Your task to perform on an android device: Search for a coffee table on Crate & Barrel Image 0: 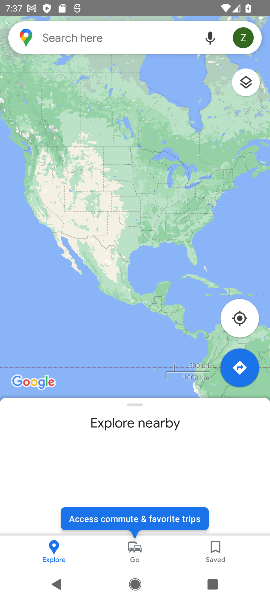
Step 0: press home button
Your task to perform on an android device: Search for a coffee table on Crate & Barrel Image 1: 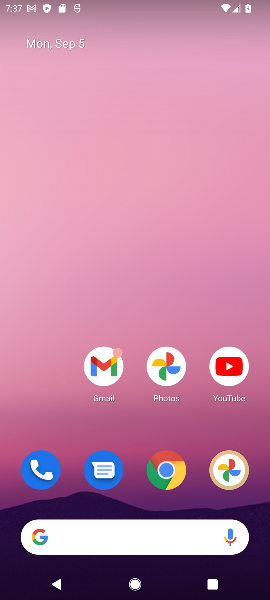
Step 1: drag from (129, 508) to (138, 53)
Your task to perform on an android device: Search for a coffee table on Crate & Barrel Image 2: 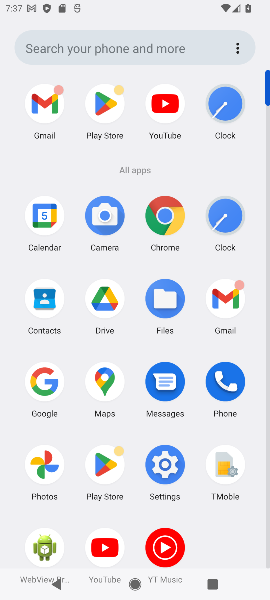
Step 2: click (40, 382)
Your task to perform on an android device: Search for a coffee table on Crate & Barrel Image 3: 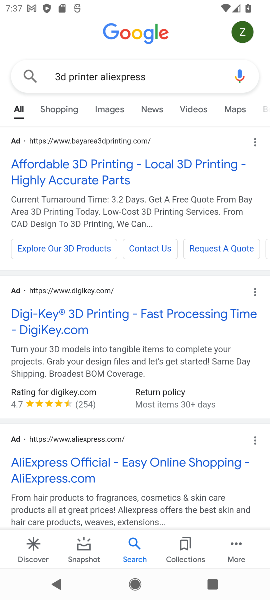
Step 3: click (115, 84)
Your task to perform on an android device: Search for a coffee table on Crate & Barrel Image 4: 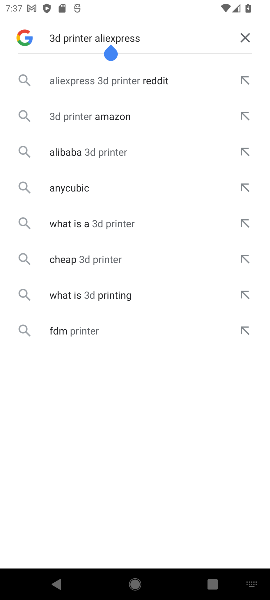
Step 4: click (242, 33)
Your task to perform on an android device: Search for a coffee table on Crate & Barrel Image 5: 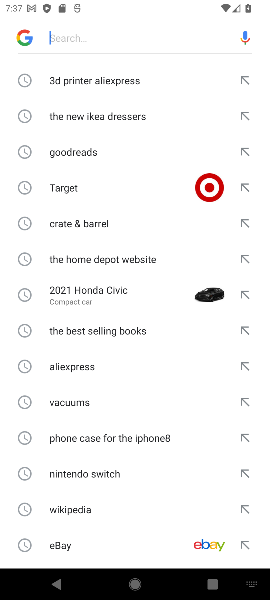
Step 5: type "Crate & Barrel"
Your task to perform on an android device: Search for a coffee table on Crate & Barrel Image 6: 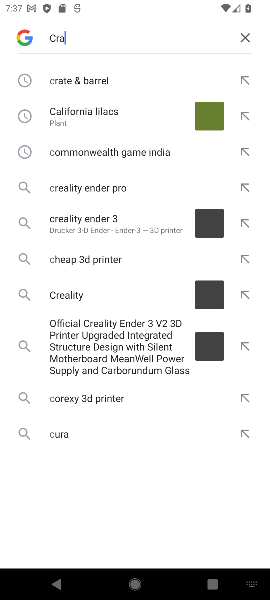
Step 6: type ""
Your task to perform on an android device: Search for a coffee table on Crate & Barrel Image 7: 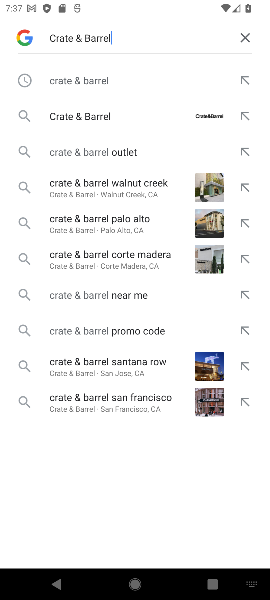
Step 7: click (82, 67)
Your task to perform on an android device: Search for a coffee table on Crate & Barrel Image 8: 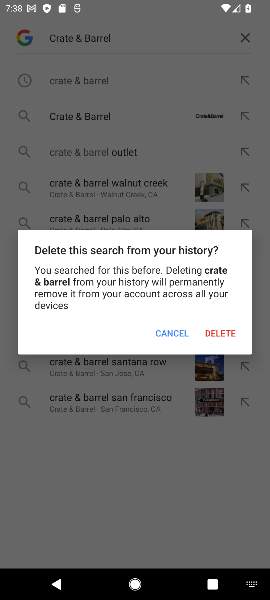
Step 8: click (166, 336)
Your task to perform on an android device: Search for a coffee table on Crate & Barrel Image 9: 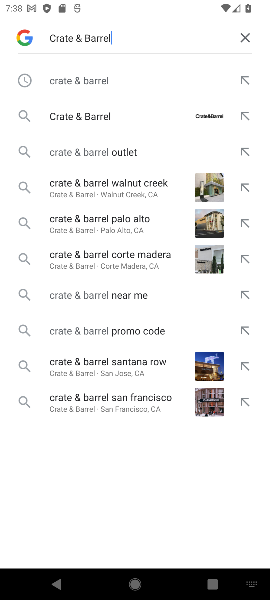
Step 9: click (41, 79)
Your task to perform on an android device: Search for a coffee table on Crate & Barrel Image 10: 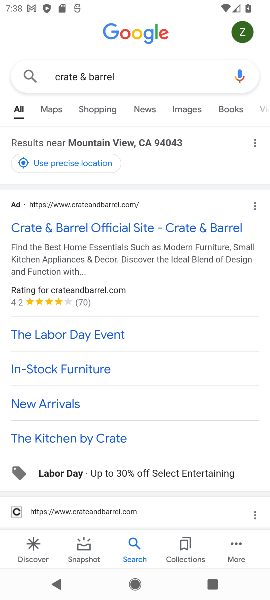
Step 10: click (66, 226)
Your task to perform on an android device: Search for a coffee table on Crate & Barrel Image 11: 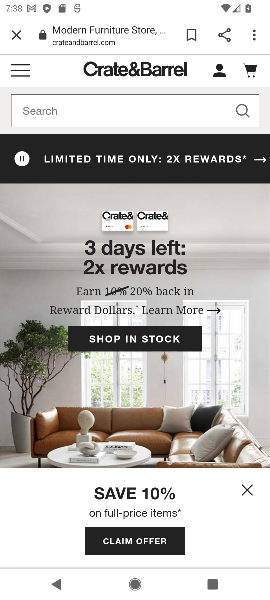
Step 11: click (153, 99)
Your task to perform on an android device: Search for a coffee table on Crate & Barrel Image 12: 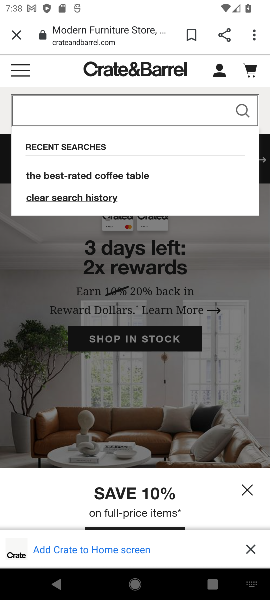
Step 12: type "coffee table "
Your task to perform on an android device: Search for a coffee table on Crate & Barrel Image 13: 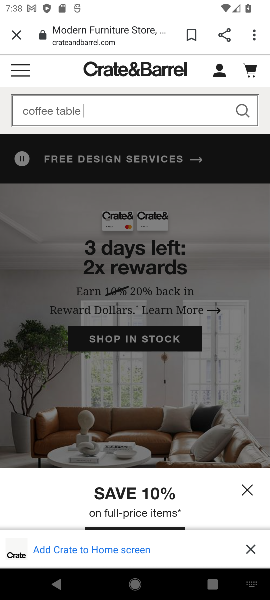
Step 13: click (237, 111)
Your task to perform on an android device: Search for a coffee table on Crate & Barrel Image 14: 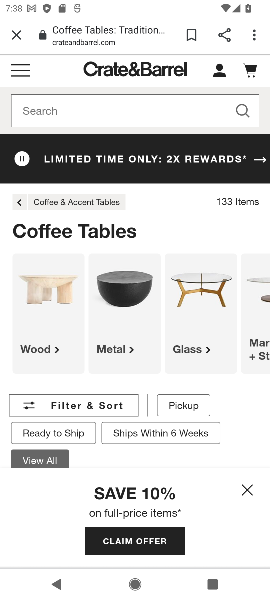
Step 14: task complete